Your task to perform on an android device: toggle notification dots Image 0: 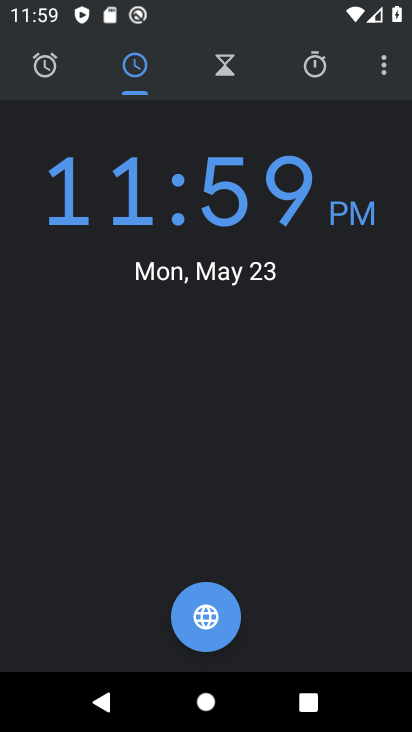
Step 0: press home button
Your task to perform on an android device: toggle notification dots Image 1: 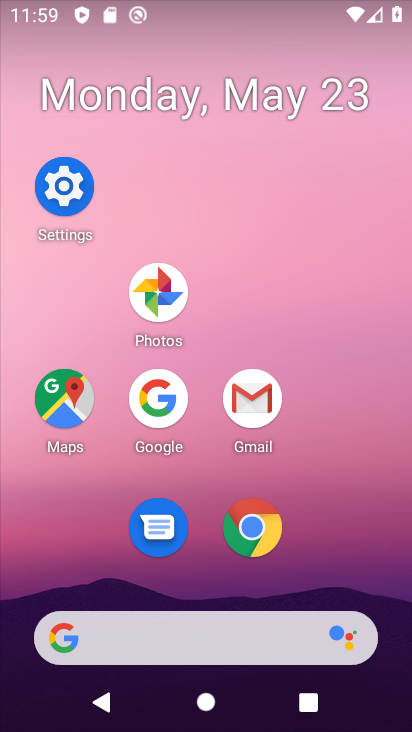
Step 1: click (62, 199)
Your task to perform on an android device: toggle notification dots Image 2: 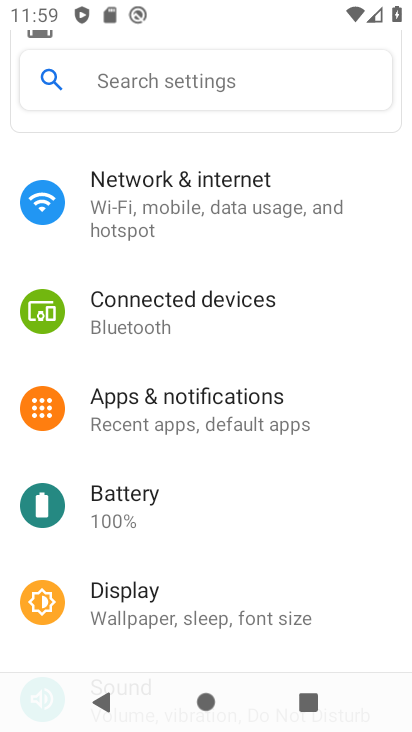
Step 2: click (242, 445)
Your task to perform on an android device: toggle notification dots Image 3: 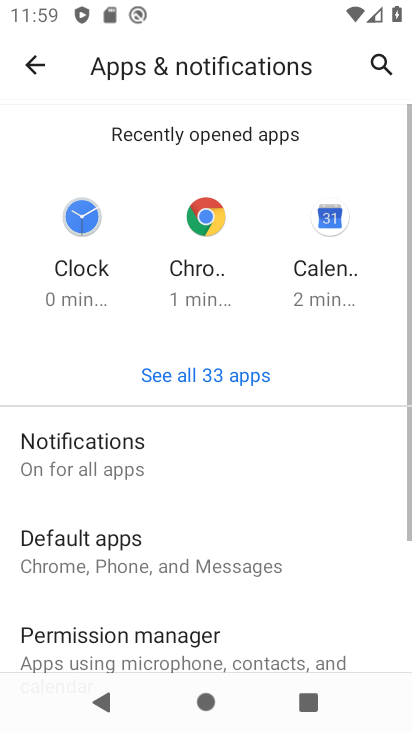
Step 3: click (204, 486)
Your task to perform on an android device: toggle notification dots Image 4: 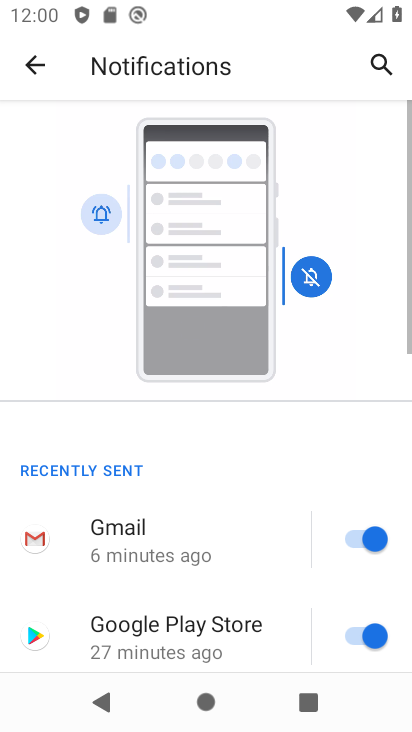
Step 4: drag from (245, 595) to (250, 134)
Your task to perform on an android device: toggle notification dots Image 5: 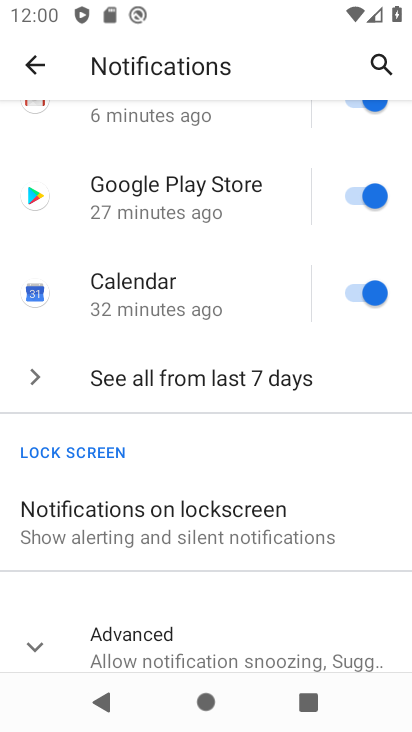
Step 5: drag from (259, 625) to (229, 122)
Your task to perform on an android device: toggle notification dots Image 6: 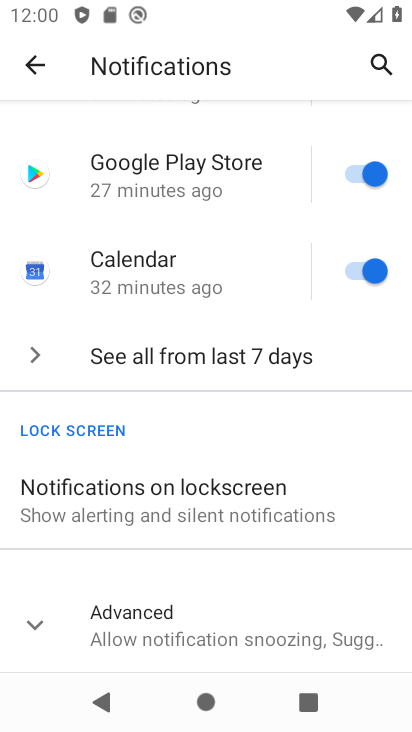
Step 6: click (238, 616)
Your task to perform on an android device: toggle notification dots Image 7: 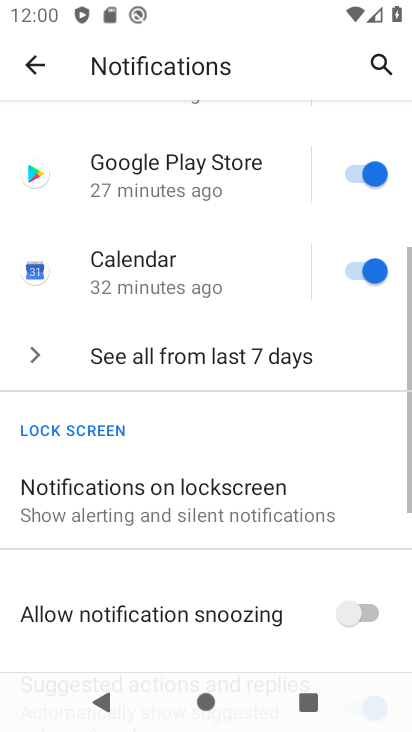
Step 7: drag from (237, 615) to (207, 162)
Your task to perform on an android device: toggle notification dots Image 8: 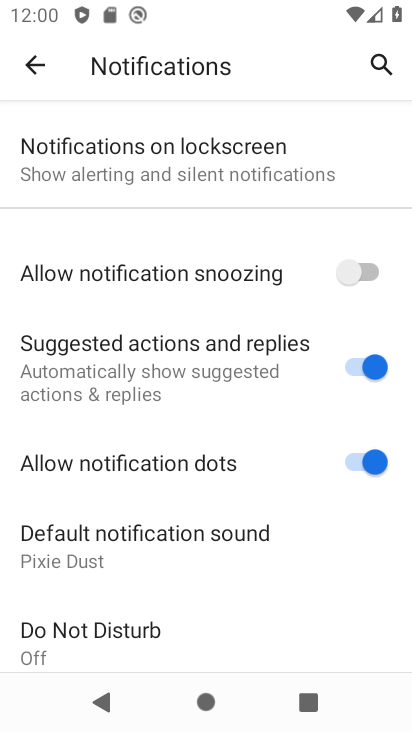
Step 8: click (372, 473)
Your task to perform on an android device: toggle notification dots Image 9: 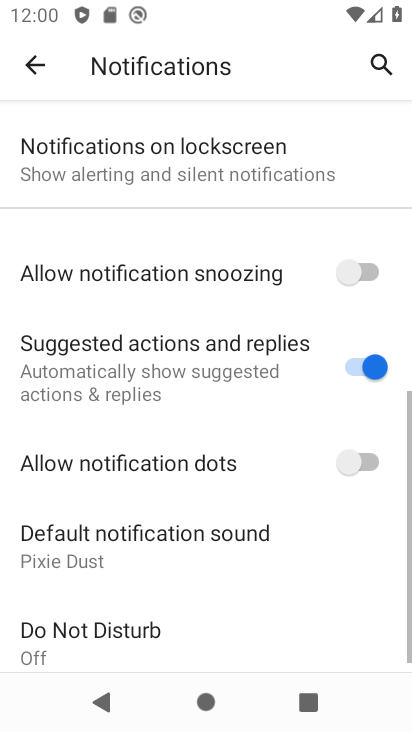
Step 9: task complete